Your task to perform on an android device: Open Yahoo.com Image 0: 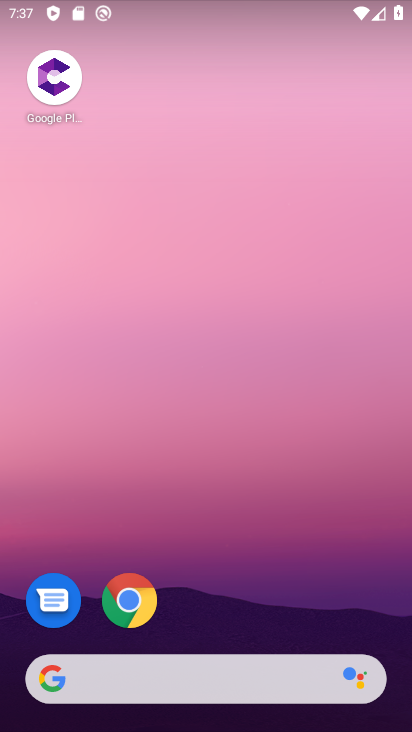
Step 0: click (115, 607)
Your task to perform on an android device: Open Yahoo.com Image 1: 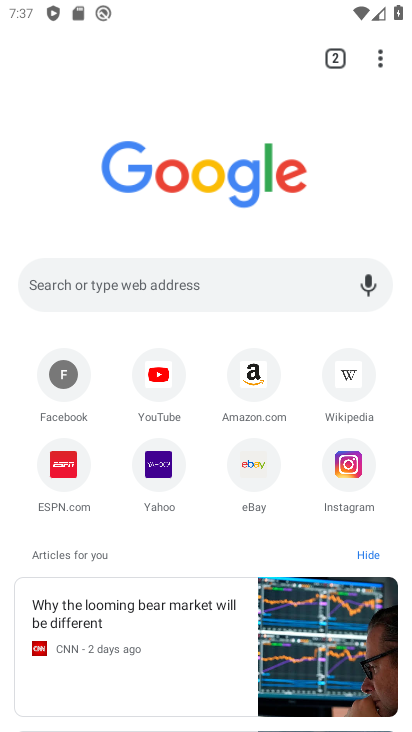
Step 1: click (171, 475)
Your task to perform on an android device: Open Yahoo.com Image 2: 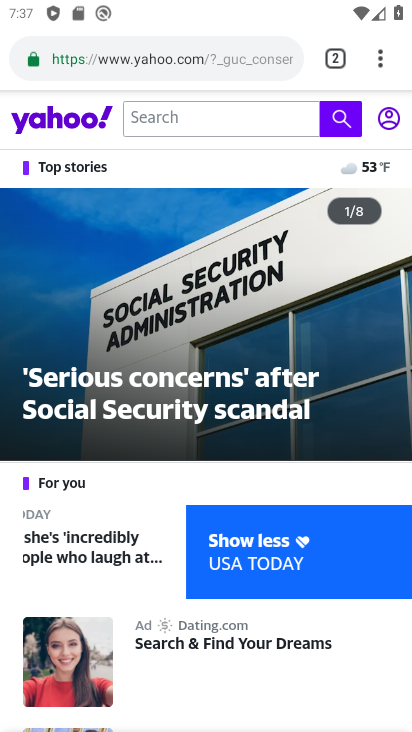
Step 2: task complete